Your task to perform on an android device: turn on translation in the chrome app Image 0: 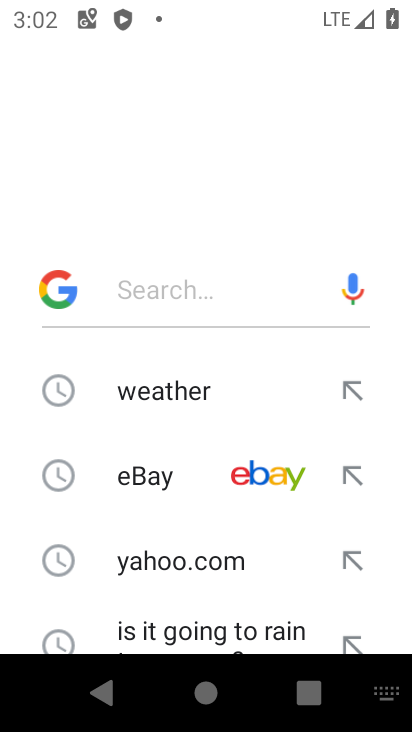
Step 0: press back button
Your task to perform on an android device: turn on translation in the chrome app Image 1: 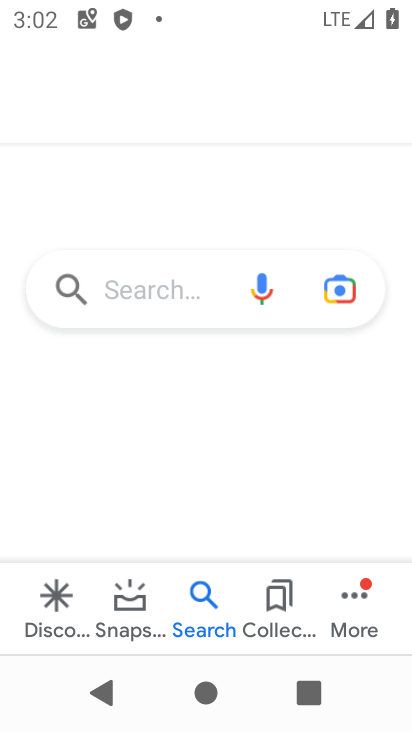
Step 1: press back button
Your task to perform on an android device: turn on translation in the chrome app Image 2: 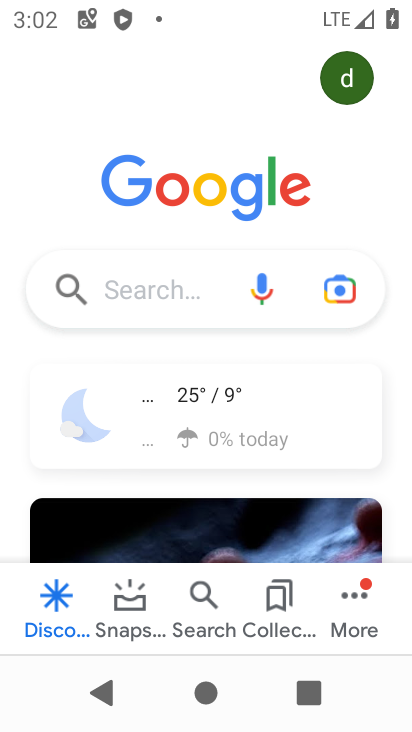
Step 2: press back button
Your task to perform on an android device: turn on translation in the chrome app Image 3: 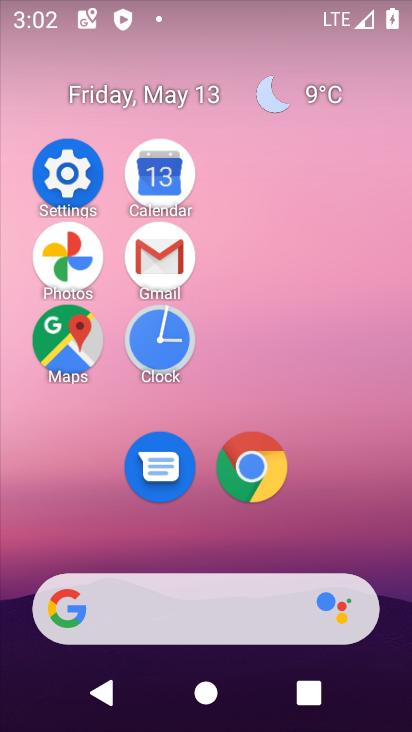
Step 3: click (268, 457)
Your task to perform on an android device: turn on translation in the chrome app Image 4: 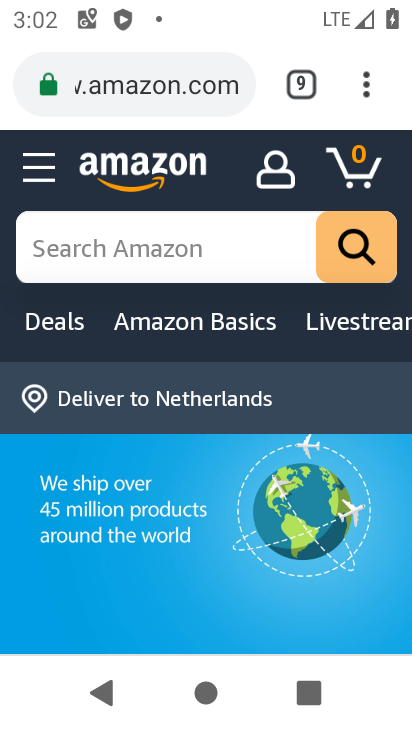
Step 4: click (369, 79)
Your task to perform on an android device: turn on translation in the chrome app Image 5: 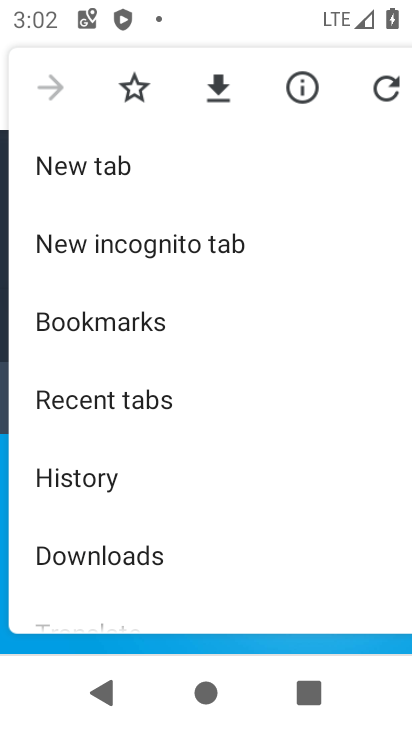
Step 5: drag from (323, 523) to (338, 155)
Your task to perform on an android device: turn on translation in the chrome app Image 6: 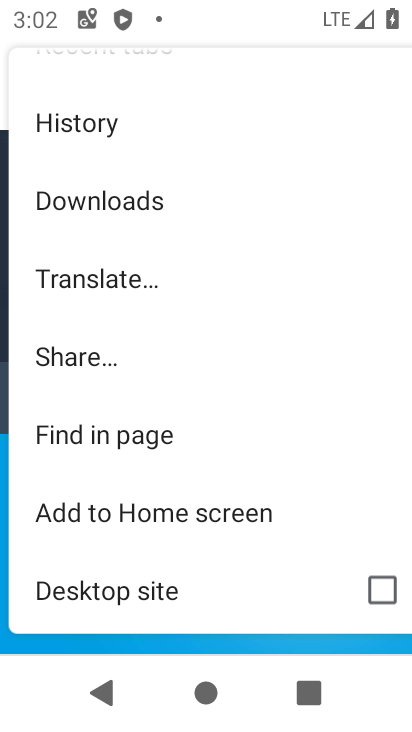
Step 6: drag from (243, 479) to (259, 156)
Your task to perform on an android device: turn on translation in the chrome app Image 7: 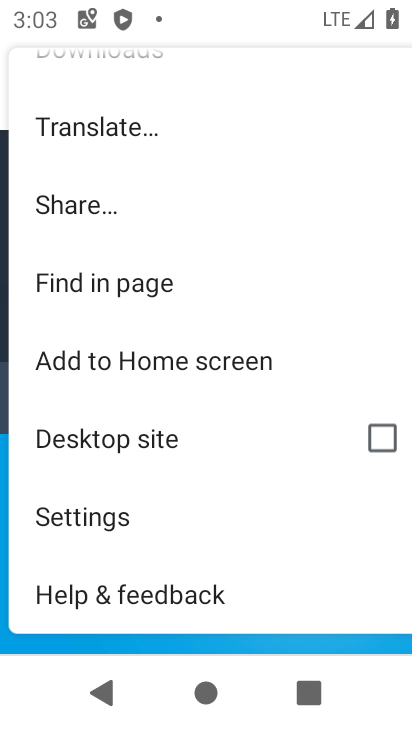
Step 7: click (120, 508)
Your task to perform on an android device: turn on translation in the chrome app Image 8: 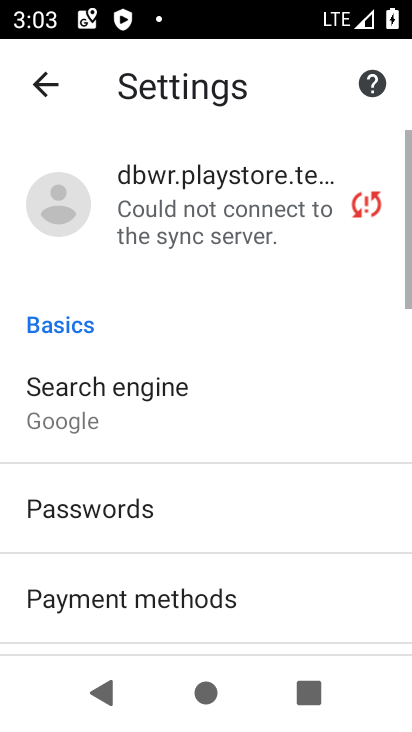
Step 8: drag from (218, 550) to (220, 191)
Your task to perform on an android device: turn on translation in the chrome app Image 9: 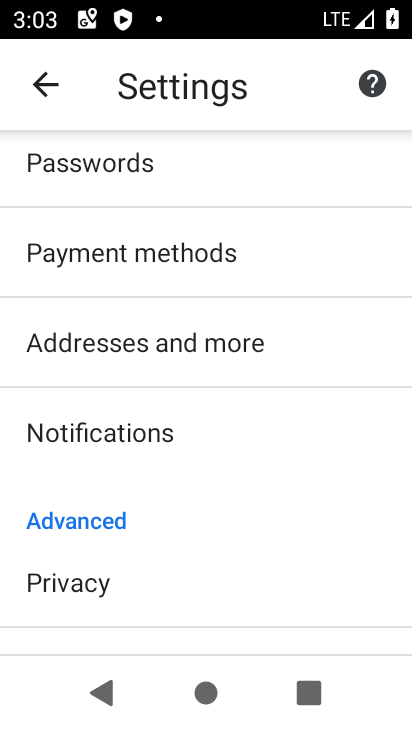
Step 9: drag from (185, 581) to (202, 196)
Your task to perform on an android device: turn on translation in the chrome app Image 10: 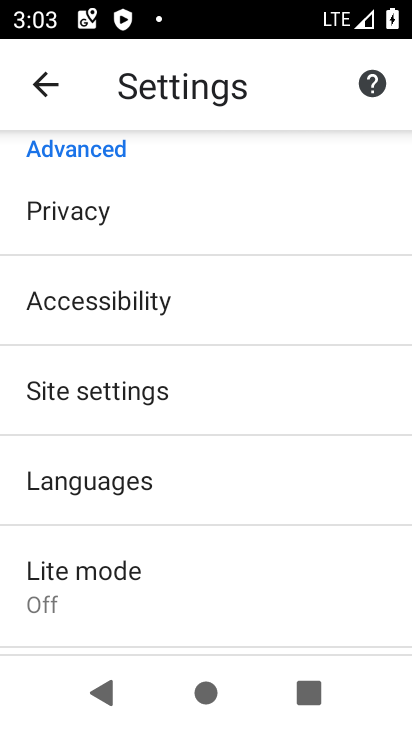
Step 10: click (193, 490)
Your task to perform on an android device: turn on translation in the chrome app Image 11: 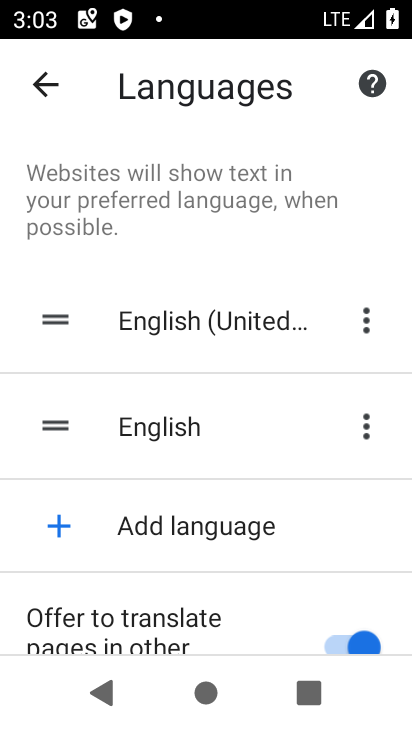
Step 11: task complete